Your task to perform on an android device: Go to privacy settings Image 0: 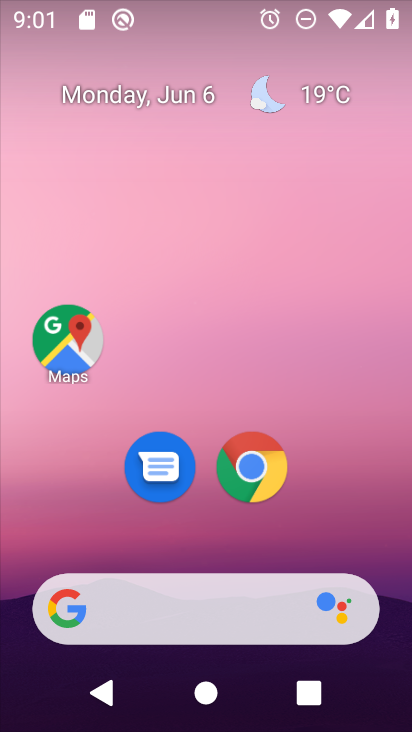
Step 0: drag from (348, 532) to (343, 97)
Your task to perform on an android device: Go to privacy settings Image 1: 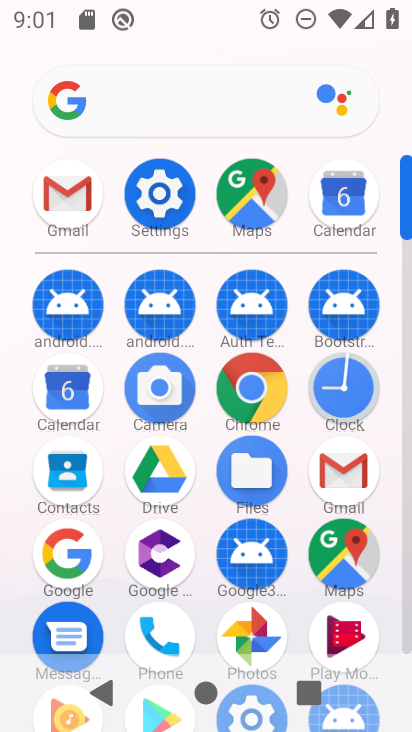
Step 1: click (158, 202)
Your task to perform on an android device: Go to privacy settings Image 2: 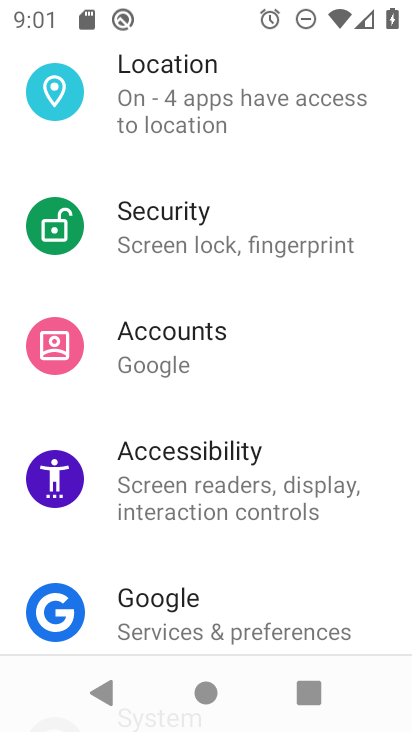
Step 2: drag from (325, 162) to (305, 351)
Your task to perform on an android device: Go to privacy settings Image 3: 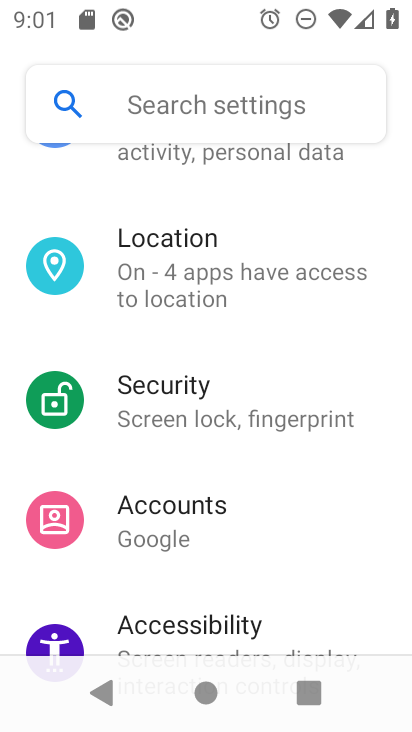
Step 3: drag from (369, 197) to (357, 360)
Your task to perform on an android device: Go to privacy settings Image 4: 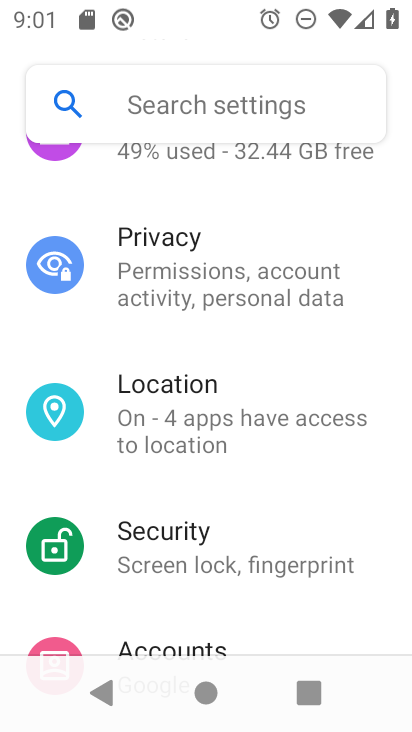
Step 4: drag from (379, 202) to (379, 373)
Your task to perform on an android device: Go to privacy settings Image 5: 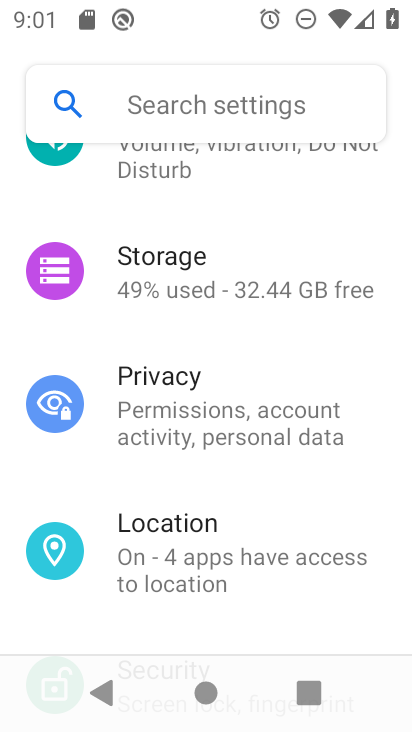
Step 5: drag from (385, 202) to (366, 367)
Your task to perform on an android device: Go to privacy settings Image 6: 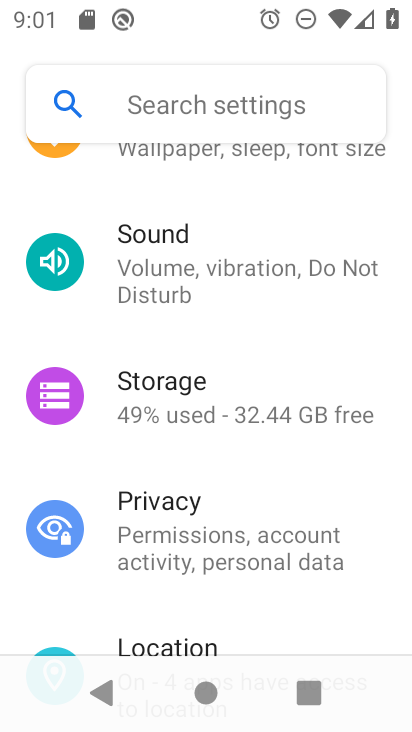
Step 6: drag from (385, 193) to (374, 327)
Your task to perform on an android device: Go to privacy settings Image 7: 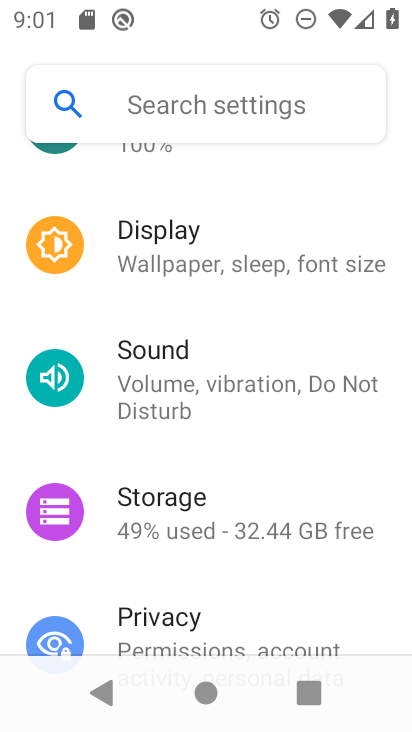
Step 7: drag from (384, 161) to (372, 333)
Your task to perform on an android device: Go to privacy settings Image 8: 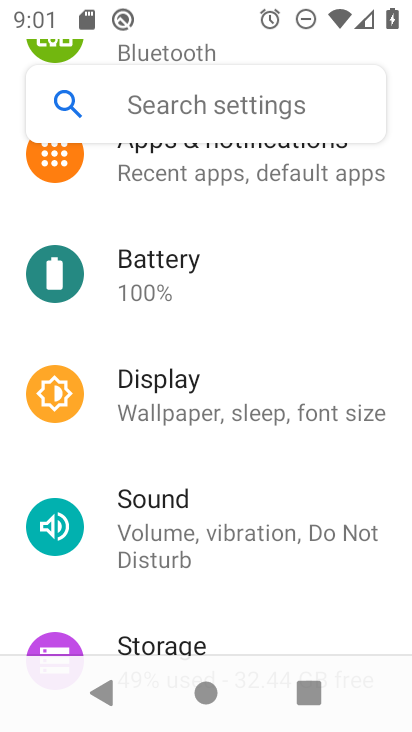
Step 8: drag from (367, 209) to (358, 369)
Your task to perform on an android device: Go to privacy settings Image 9: 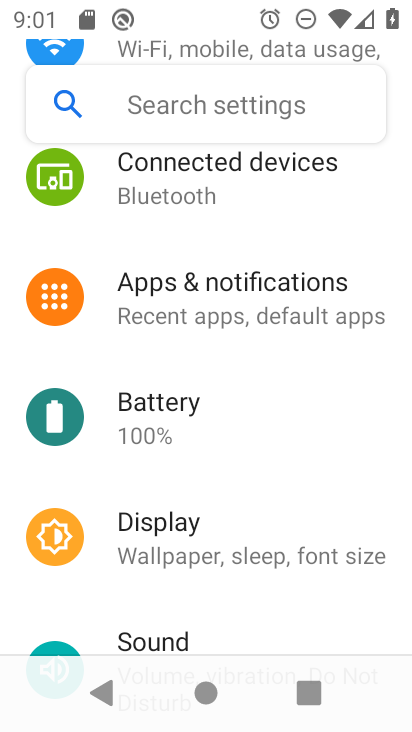
Step 9: drag from (372, 178) to (361, 362)
Your task to perform on an android device: Go to privacy settings Image 10: 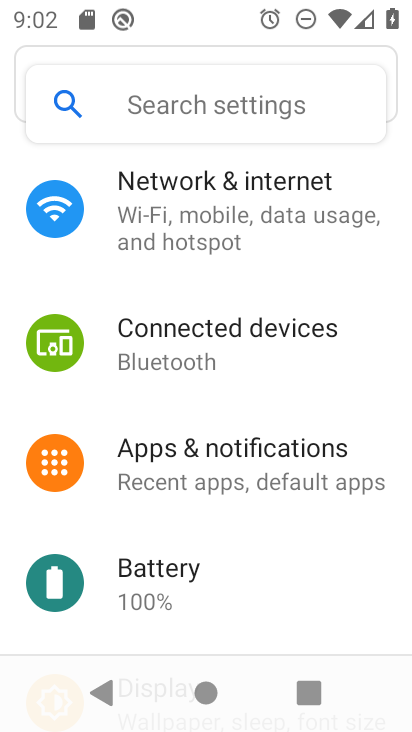
Step 10: drag from (361, 362) to (376, 201)
Your task to perform on an android device: Go to privacy settings Image 11: 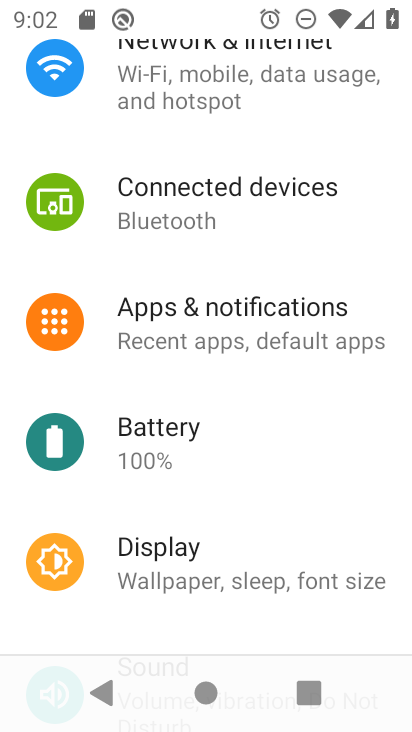
Step 11: drag from (340, 484) to (327, 290)
Your task to perform on an android device: Go to privacy settings Image 12: 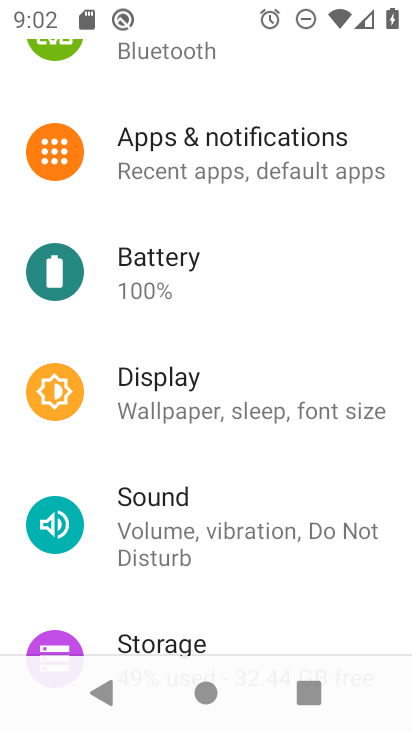
Step 12: drag from (300, 456) to (294, 256)
Your task to perform on an android device: Go to privacy settings Image 13: 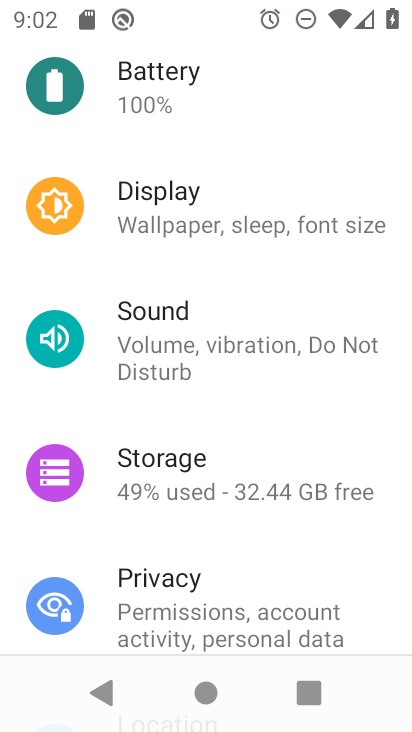
Step 13: drag from (278, 547) to (291, 273)
Your task to perform on an android device: Go to privacy settings Image 14: 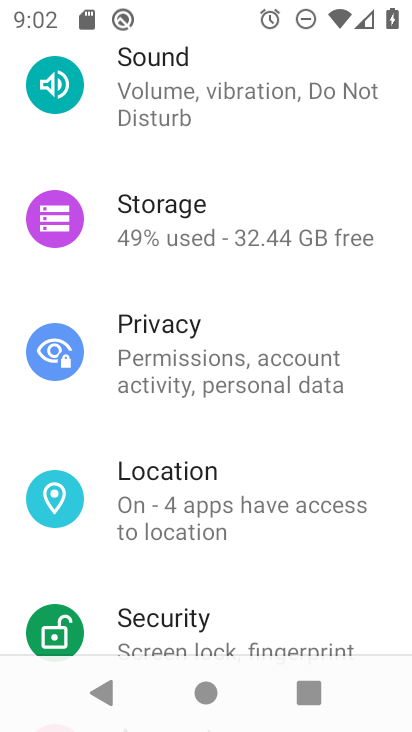
Step 14: click (277, 343)
Your task to perform on an android device: Go to privacy settings Image 15: 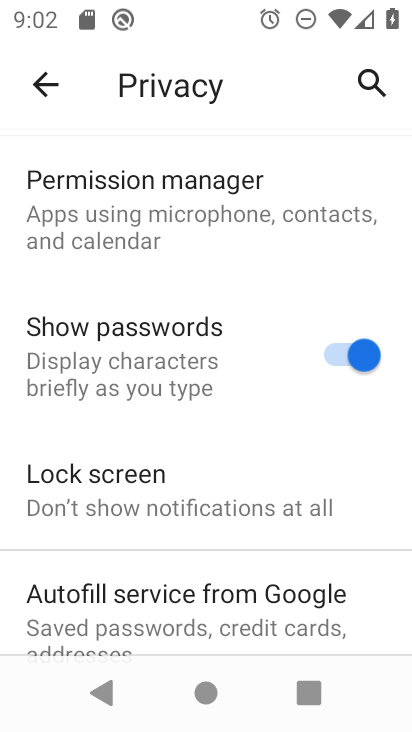
Step 15: task complete